Your task to perform on an android device: change the clock display to show seconds Image 0: 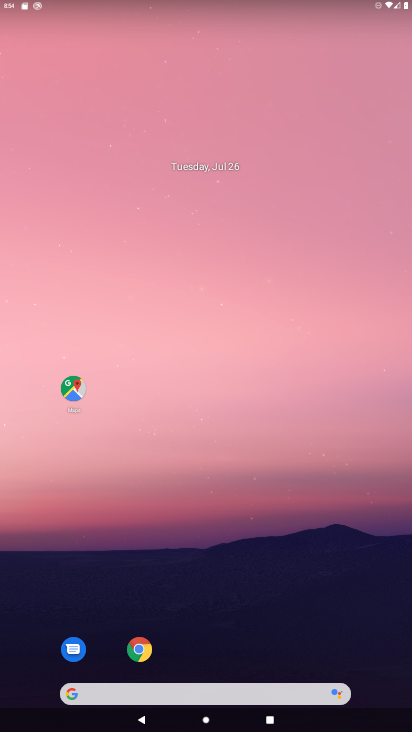
Step 0: drag from (210, 648) to (281, 44)
Your task to perform on an android device: change the clock display to show seconds Image 1: 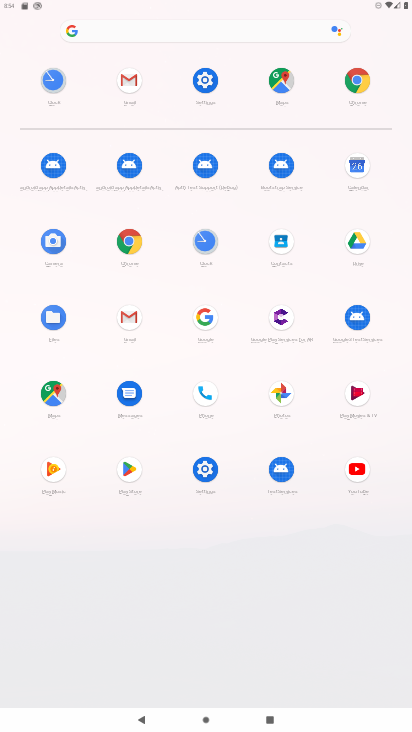
Step 1: click (214, 235)
Your task to perform on an android device: change the clock display to show seconds Image 2: 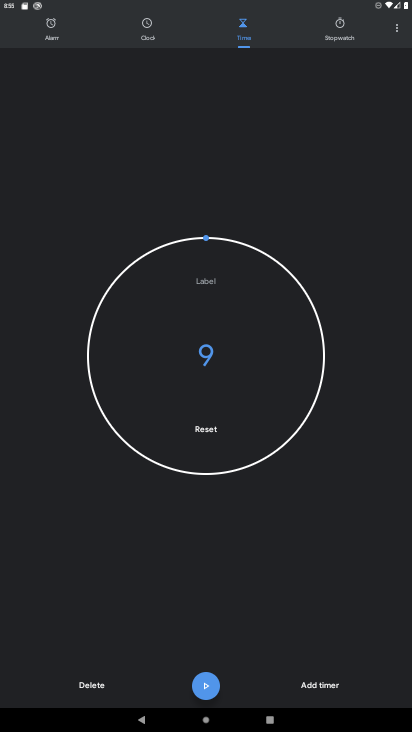
Step 2: click (387, 39)
Your task to perform on an android device: change the clock display to show seconds Image 3: 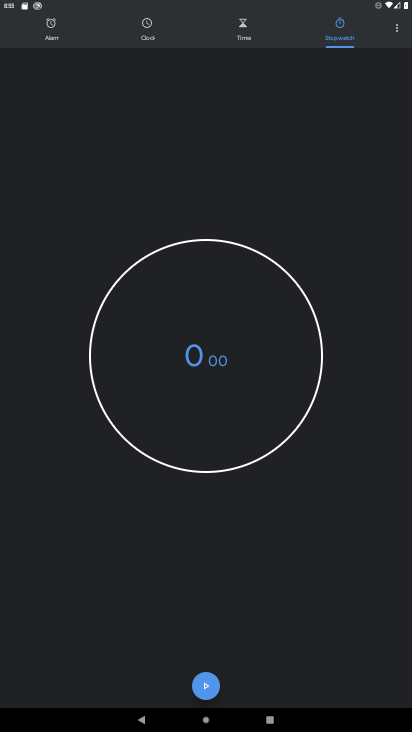
Step 3: click (394, 42)
Your task to perform on an android device: change the clock display to show seconds Image 4: 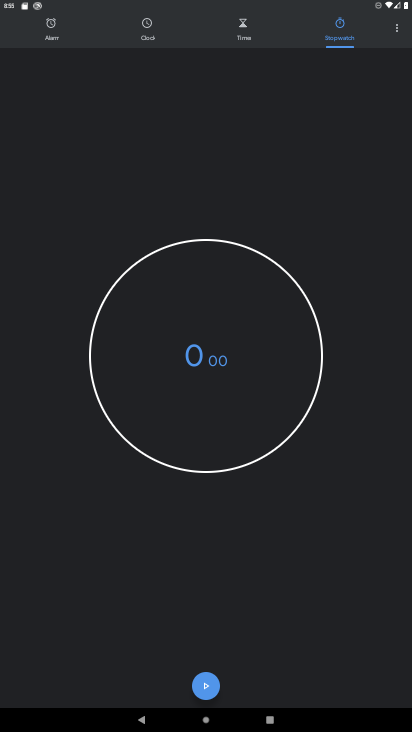
Step 4: click (394, 42)
Your task to perform on an android device: change the clock display to show seconds Image 5: 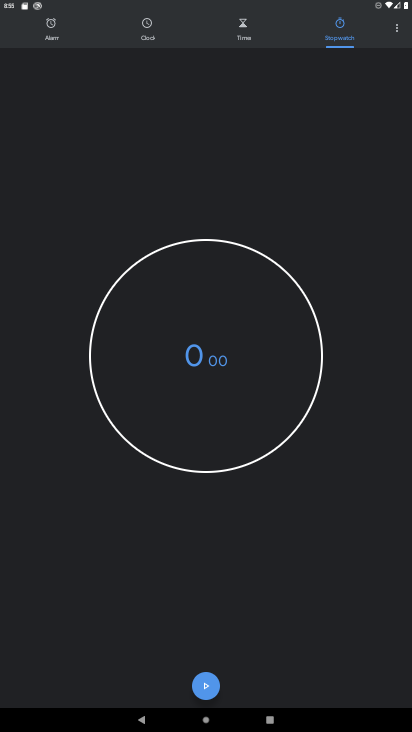
Step 5: click (402, 33)
Your task to perform on an android device: change the clock display to show seconds Image 6: 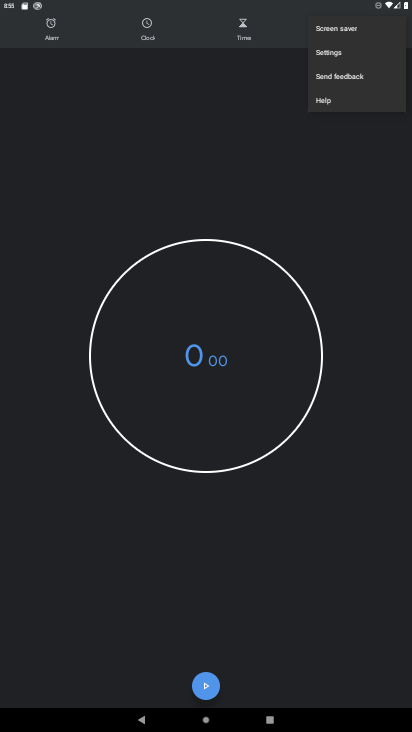
Step 6: click (354, 53)
Your task to perform on an android device: change the clock display to show seconds Image 7: 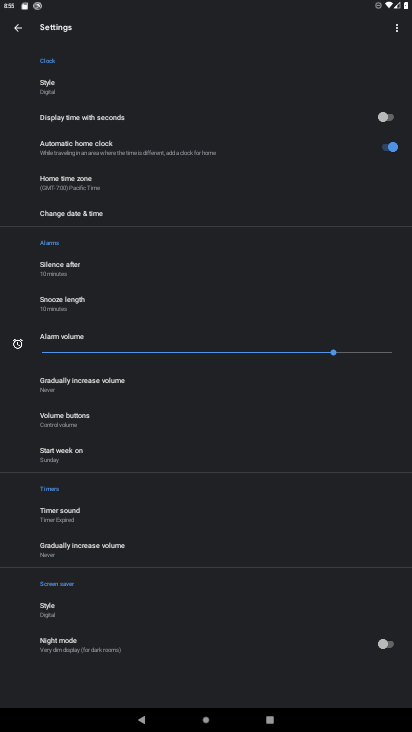
Step 7: click (387, 118)
Your task to perform on an android device: change the clock display to show seconds Image 8: 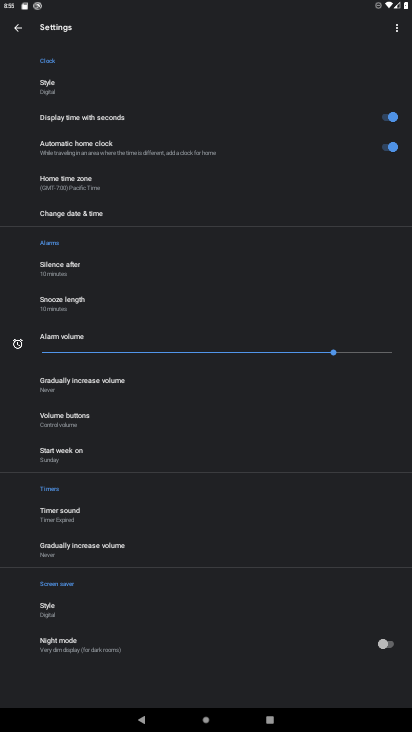
Step 8: task complete